Your task to perform on an android device: Go to network settings Image 0: 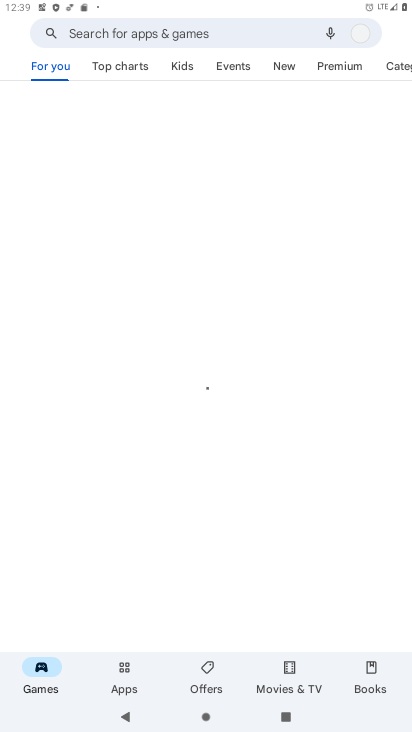
Step 0: press home button
Your task to perform on an android device: Go to network settings Image 1: 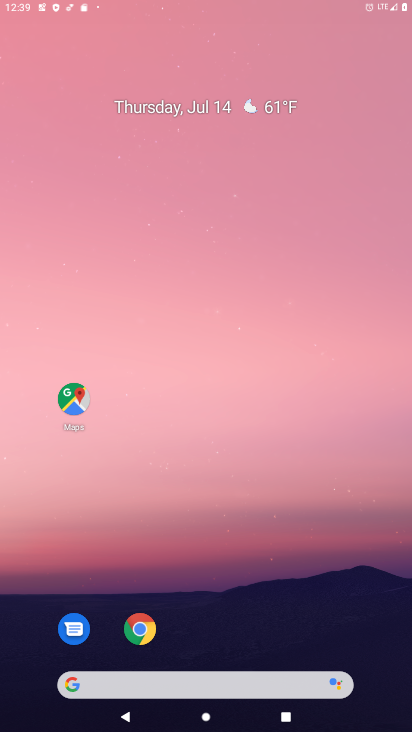
Step 1: drag from (290, 585) to (182, 148)
Your task to perform on an android device: Go to network settings Image 2: 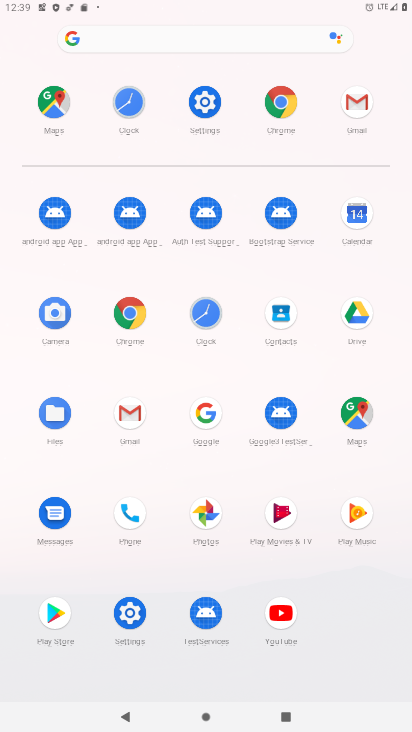
Step 2: click (203, 100)
Your task to perform on an android device: Go to network settings Image 3: 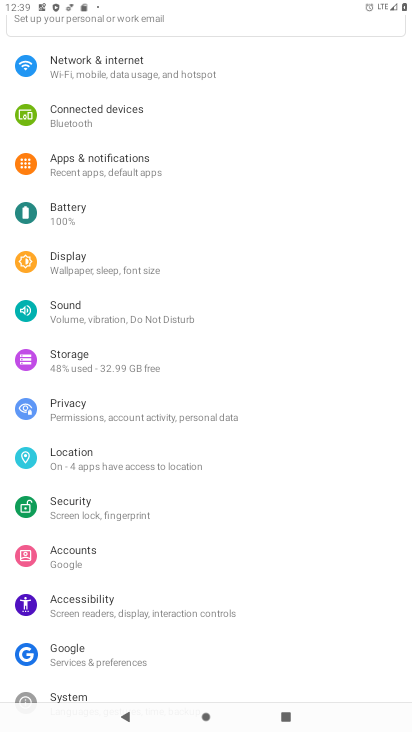
Step 3: click (104, 62)
Your task to perform on an android device: Go to network settings Image 4: 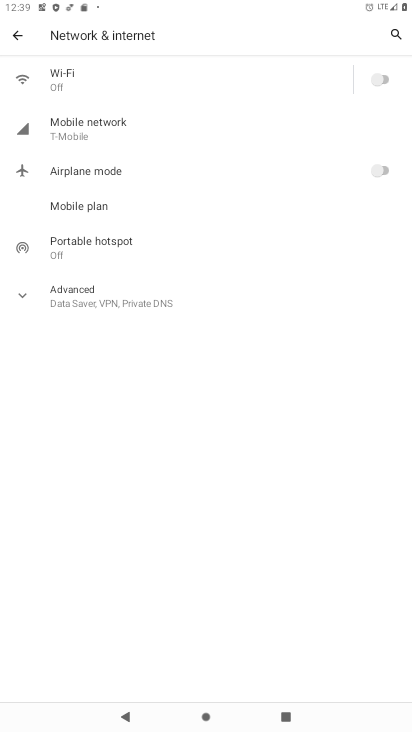
Step 4: click (179, 127)
Your task to perform on an android device: Go to network settings Image 5: 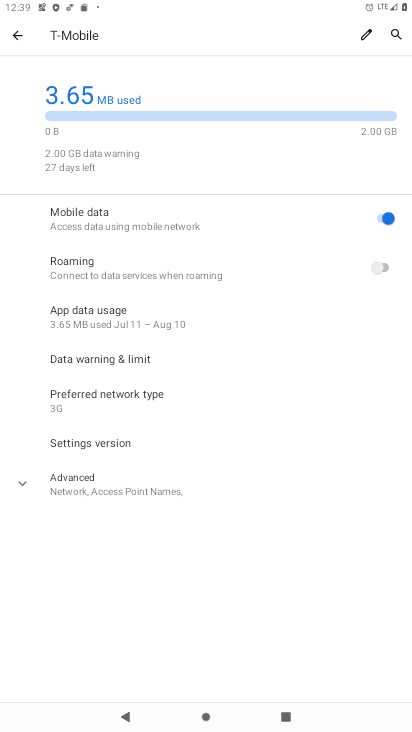
Step 5: task complete